Your task to perform on an android device: toggle improve location accuracy Image 0: 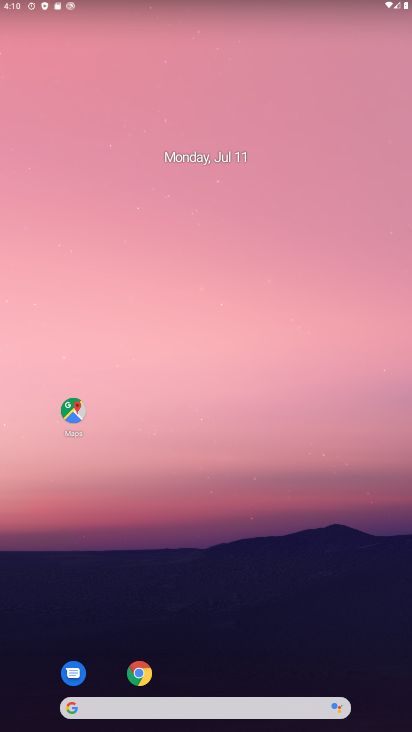
Step 0: drag from (282, 658) to (315, 81)
Your task to perform on an android device: toggle improve location accuracy Image 1: 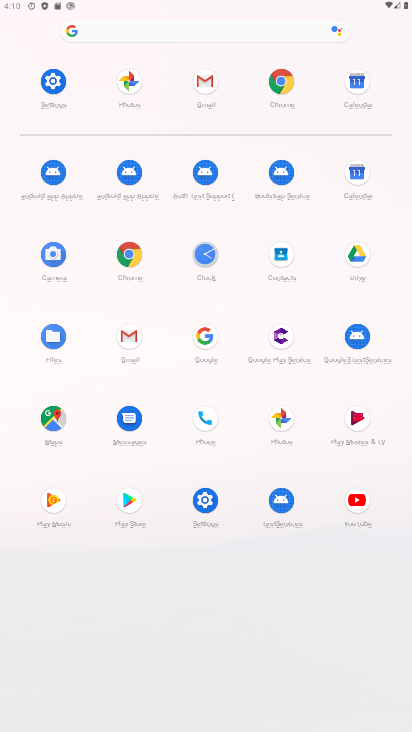
Step 1: click (203, 497)
Your task to perform on an android device: toggle improve location accuracy Image 2: 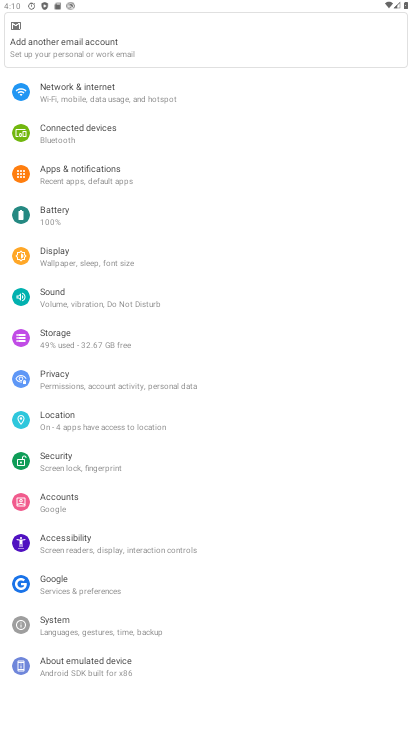
Step 2: click (57, 412)
Your task to perform on an android device: toggle improve location accuracy Image 3: 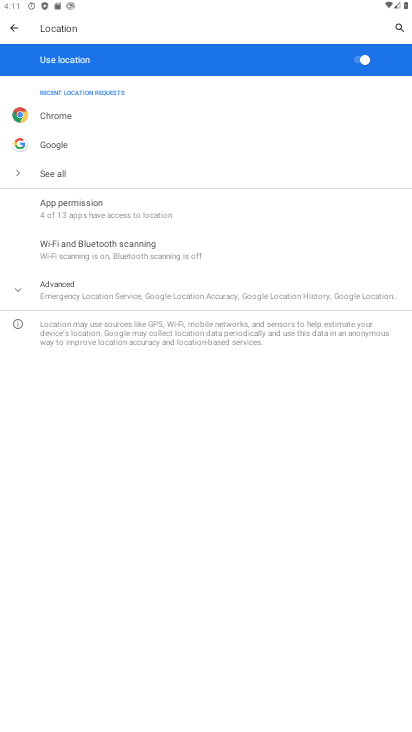
Step 3: click (127, 292)
Your task to perform on an android device: toggle improve location accuracy Image 4: 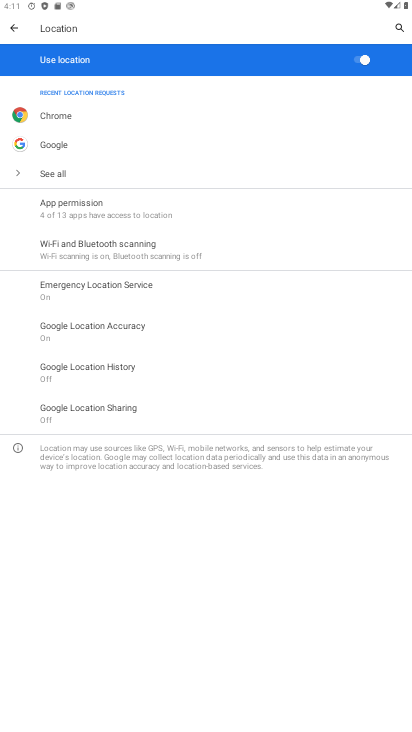
Step 4: click (112, 327)
Your task to perform on an android device: toggle improve location accuracy Image 5: 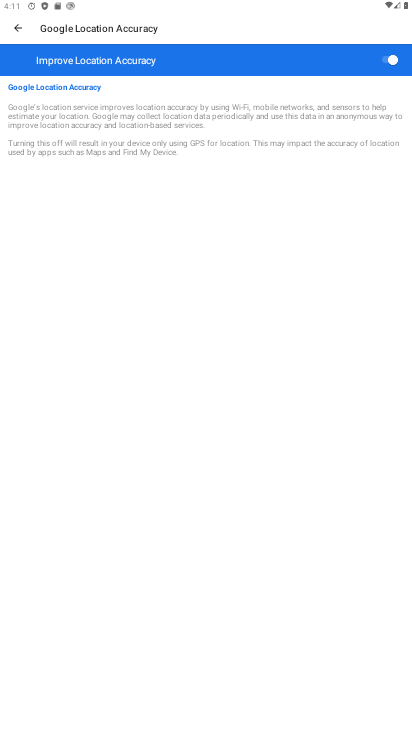
Step 5: click (385, 58)
Your task to perform on an android device: toggle improve location accuracy Image 6: 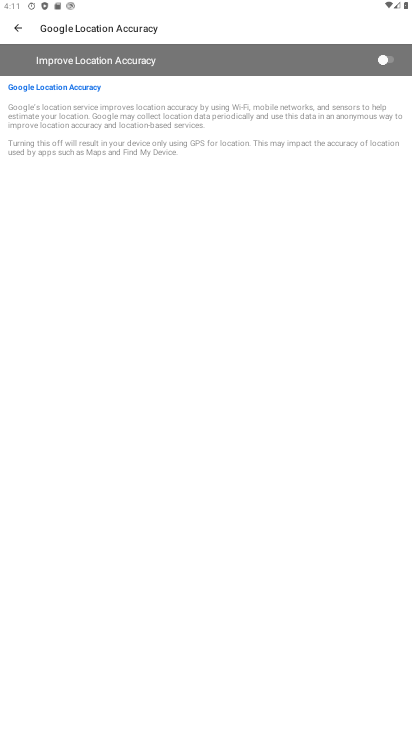
Step 6: task complete